Your task to perform on an android device: Open Yahoo.com Image 0: 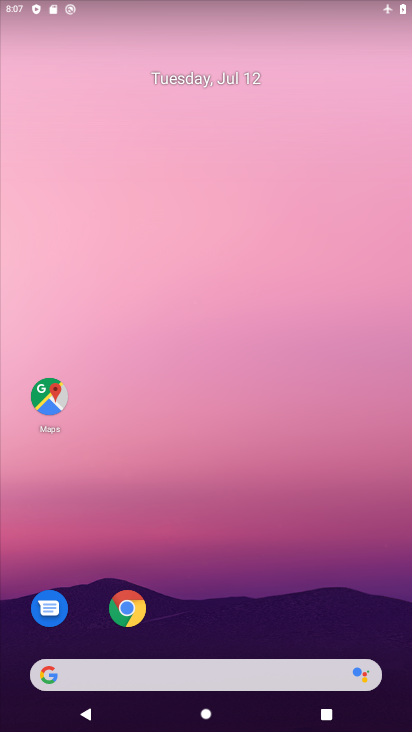
Step 0: click (139, 612)
Your task to perform on an android device: Open Yahoo.com Image 1: 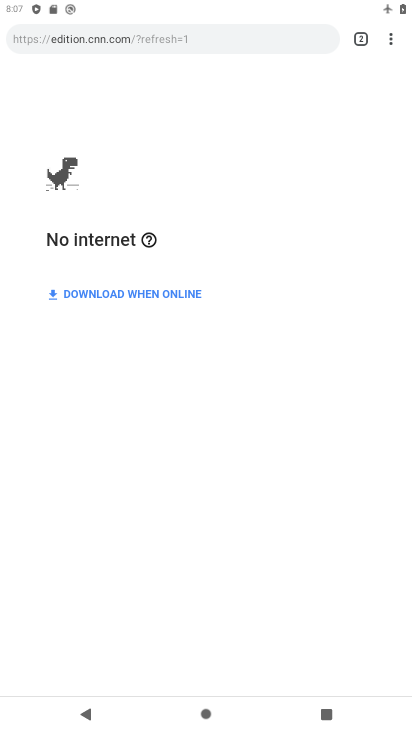
Step 1: click (359, 43)
Your task to perform on an android device: Open Yahoo.com Image 2: 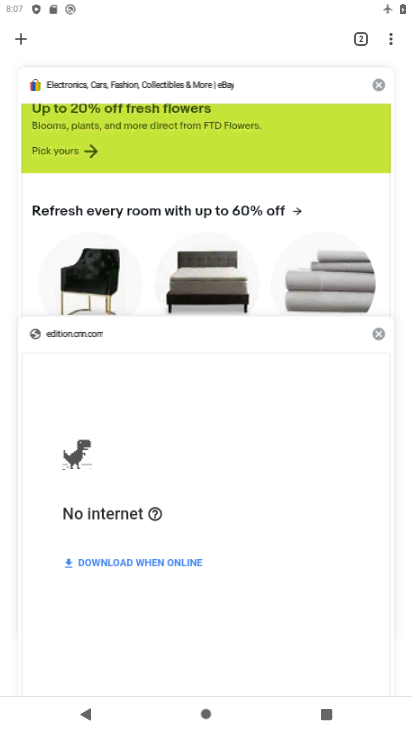
Step 2: click (26, 41)
Your task to perform on an android device: Open Yahoo.com Image 3: 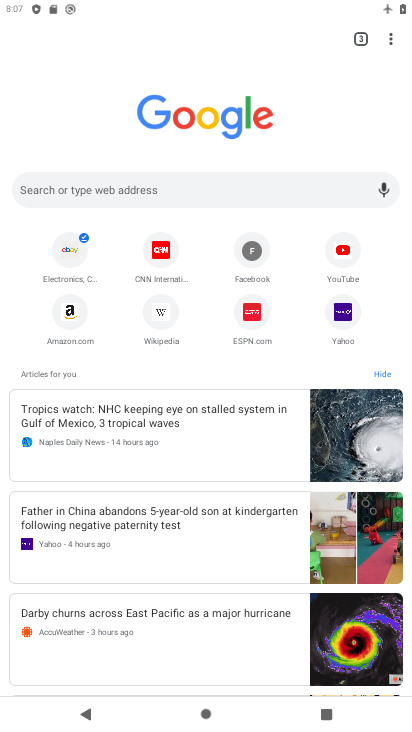
Step 3: click (353, 314)
Your task to perform on an android device: Open Yahoo.com Image 4: 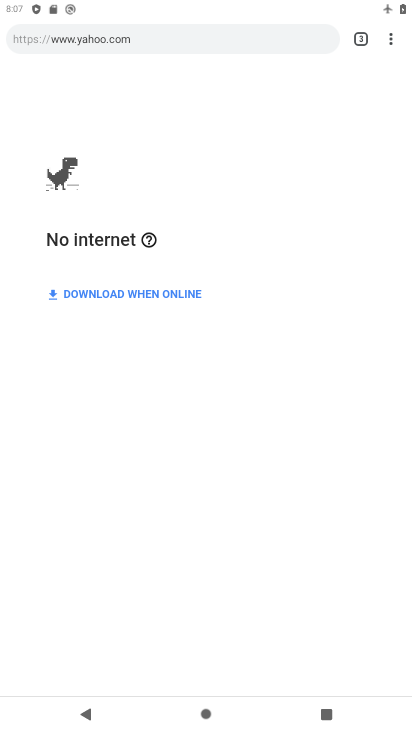
Step 4: task complete